Your task to perform on an android device: Go to Maps Image 0: 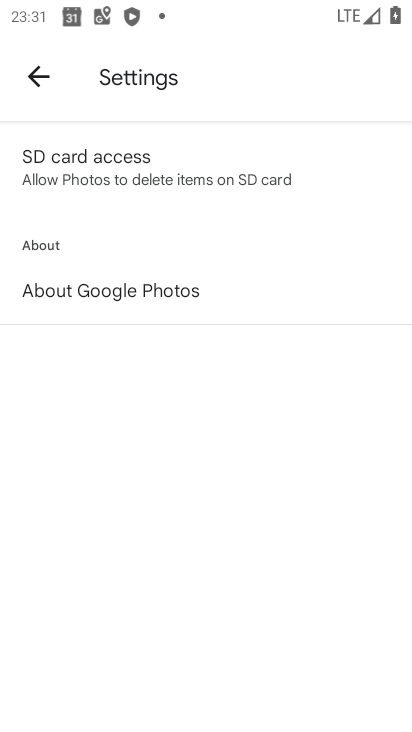
Step 0: press home button
Your task to perform on an android device: Go to Maps Image 1: 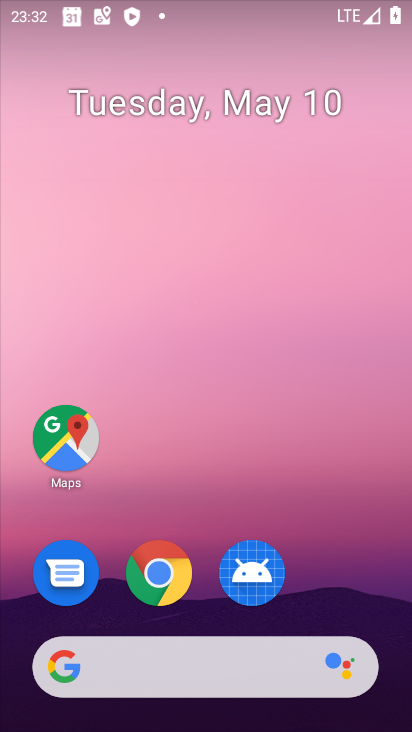
Step 1: click (64, 459)
Your task to perform on an android device: Go to Maps Image 2: 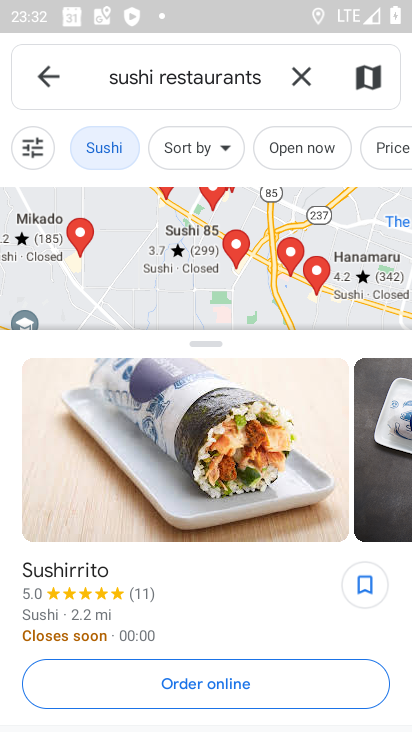
Step 2: click (299, 80)
Your task to perform on an android device: Go to Maps Image 3: 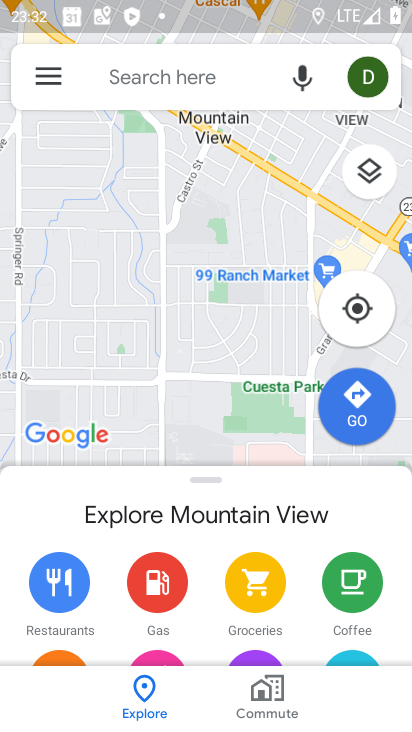
Step 3: task complete